Your task to perform on an android device: Open the phone app and click the voicemail tab. Image 0: 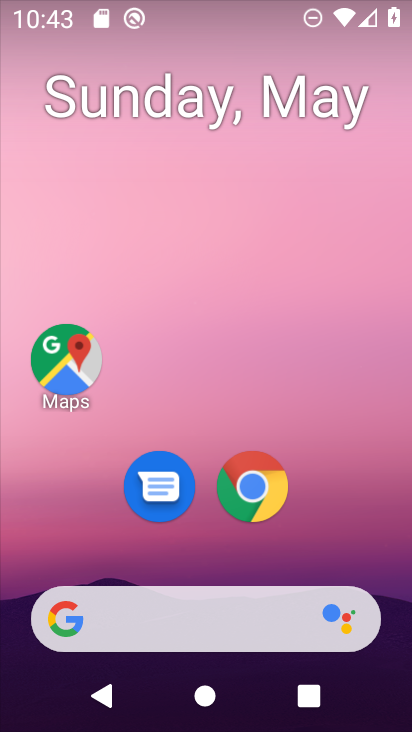
Step 0: drag from (385, 576) to (240, 82)
Your task to perform on an android device: Open the phone app and click the voicemail tab. Image 1: 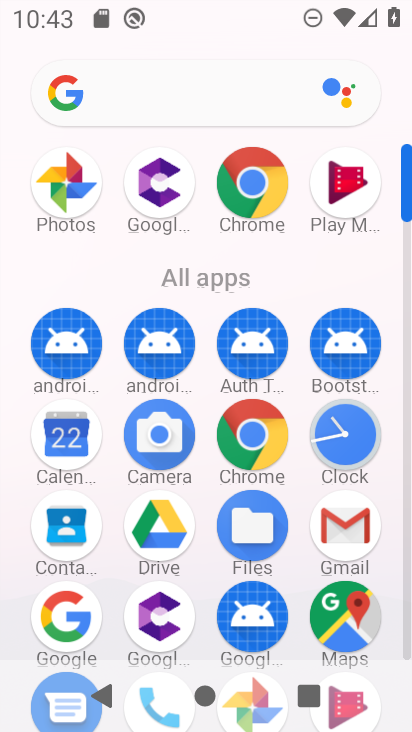
Step 1: click (409, 652)
Your task to perform on an android device: Open the phone app and click the voicemail tab. Image 2: 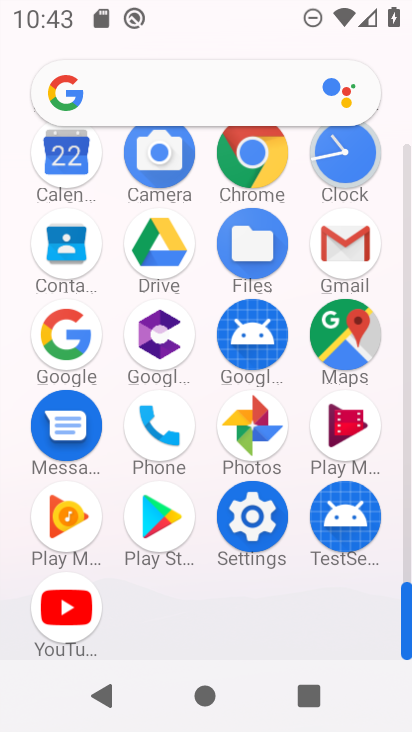
Step 2: click (175, 429)
Your task to perform on an android device: Open the phone app and click the voicemail tab. Image 3: 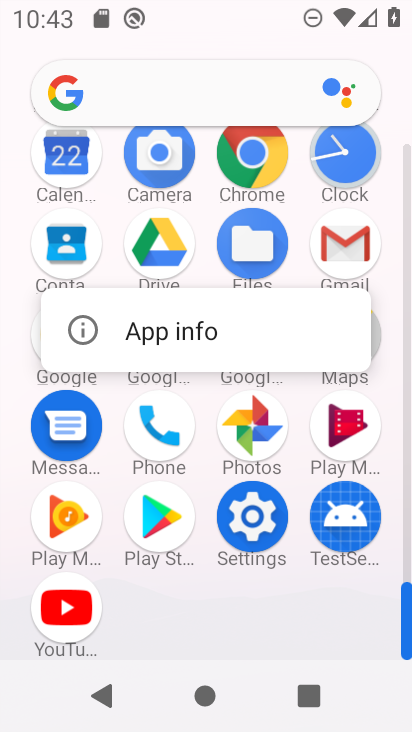
Step 3: click (164, 429)
Your task to perform on an android device: Open the phone app and click the voicemail tab. Image 4: 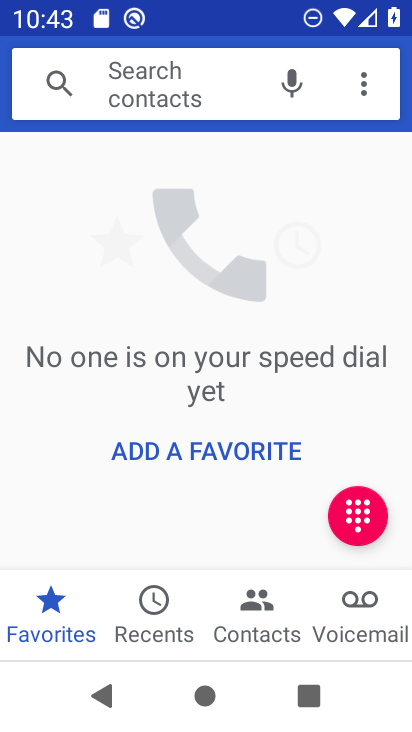
Step 4: click (377, 641)
Your task to perform on an android device: Open the phone app and click the voicemail tab. Image 5: 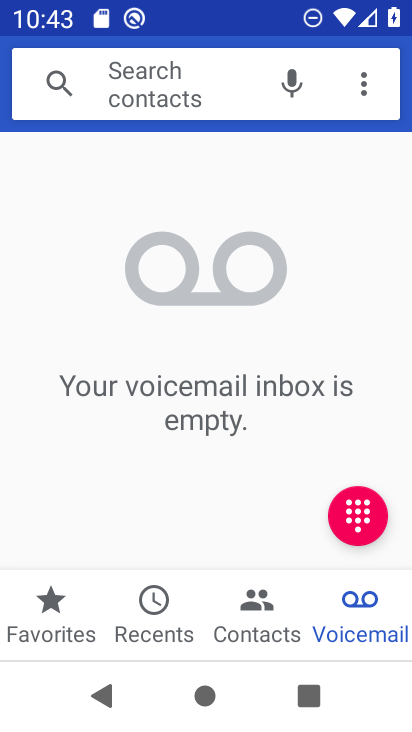
Step 5: task complete